Your task to perform on an android device: see creations saved in the google photos Image 0: 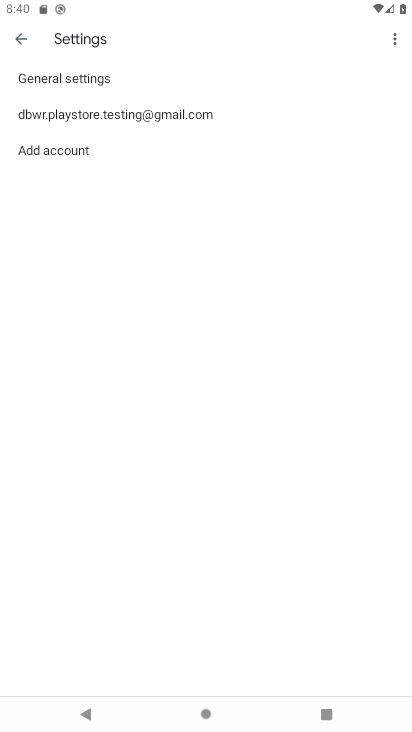
Step 0: press home button
Your task to perform on an android device: see creations saved in the google photos Image 1: 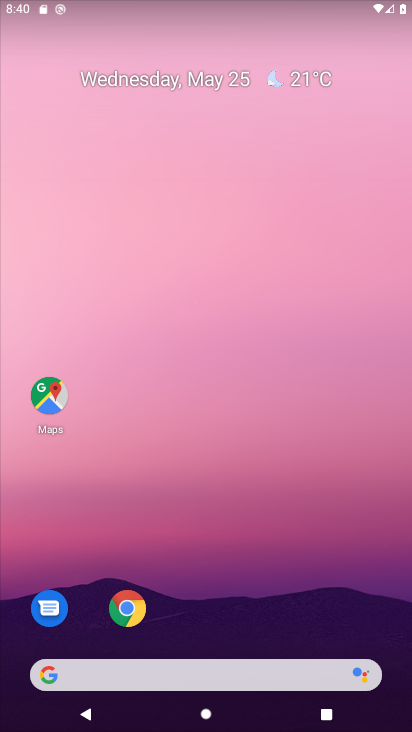
Step 1: drag from (175, 723) to (169, 12)
Your task to perform on an android device: see creations saved in the google photos Image 2: 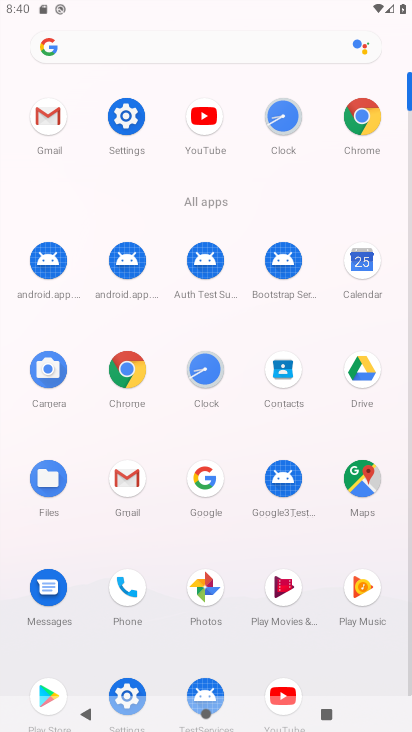
Step 2: click (211, 586)
Your task to perform on an android device: see creations saved in the google photos Image 3: 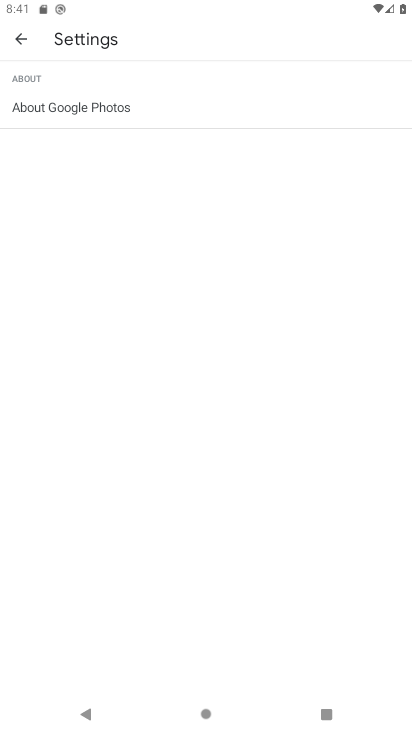
Step 3: click (17, 40)
Your task to perform on an android device: see creations saved in the google photos Image 4: 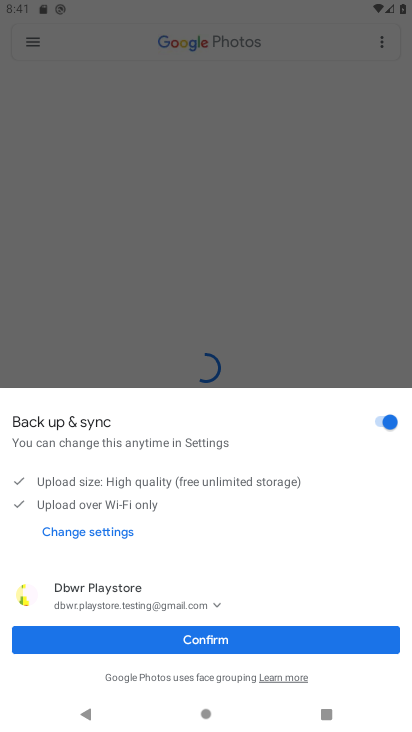
Step 4: click (204, 641)
Your task to perform on an android device: see creations saved in the google photos Image 5: 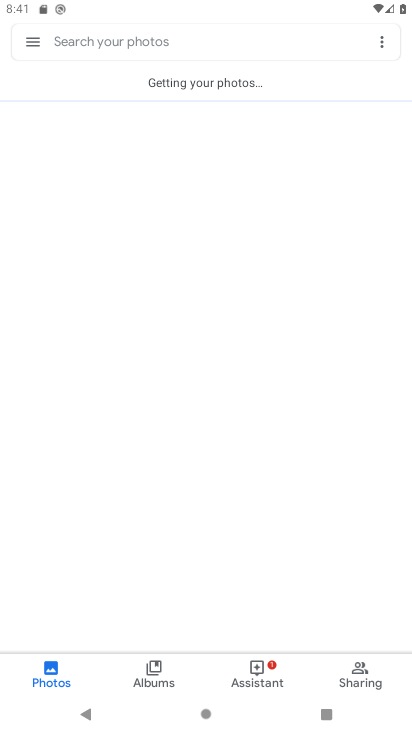
Step 5: click (202, 36)
Your task to perform on an android device: see creations saved in the google photos Image 6: 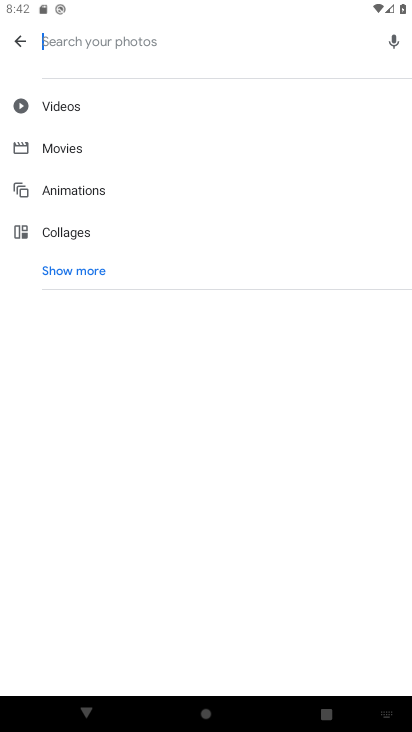
Step 6: click (72, 273)
Your task to perform on an android device: see creations saved in the google photos Image 7: 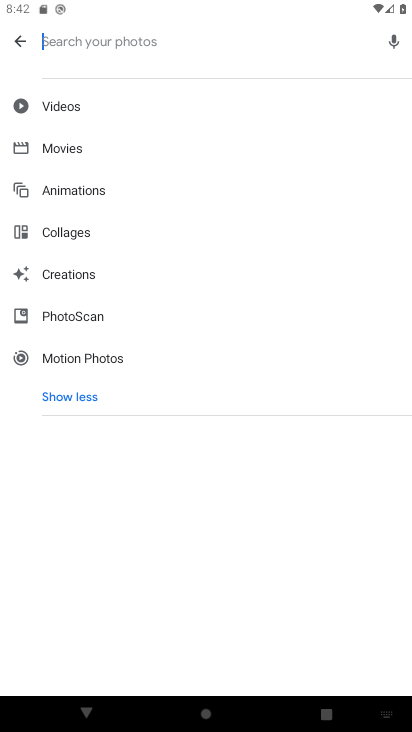
Step 7: click (77, 266)
Your task to perform on an android device: see creations saved in the google photos Image 8: 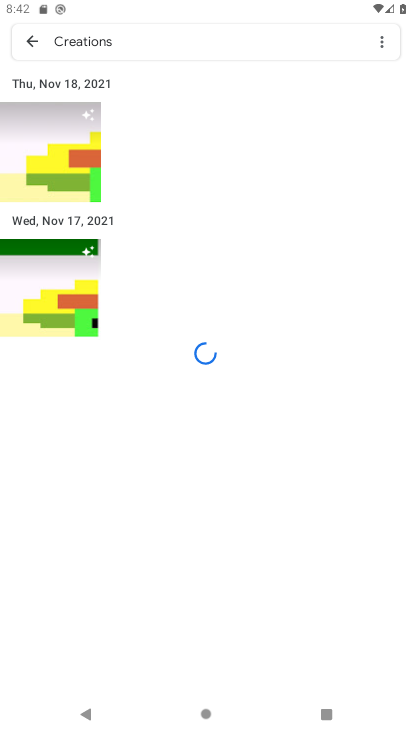
Step 8: task complete